Your task to perform on an android device: Go to wifi settings Image 0: 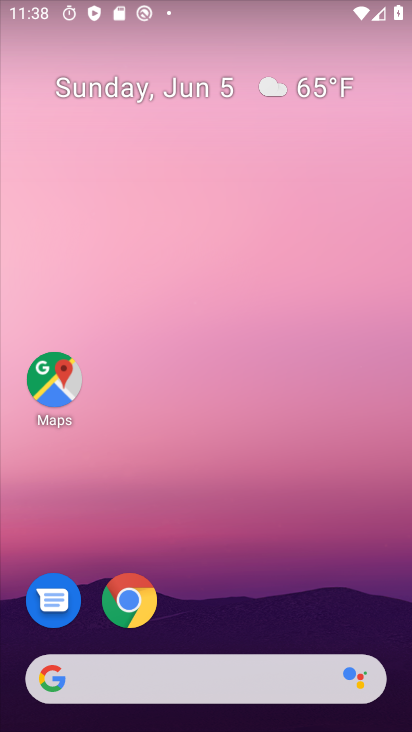
Step 0: drag from (257, 613) to (129, 143)
Your task to perform on an android device: Go to wifi settings Image 1: 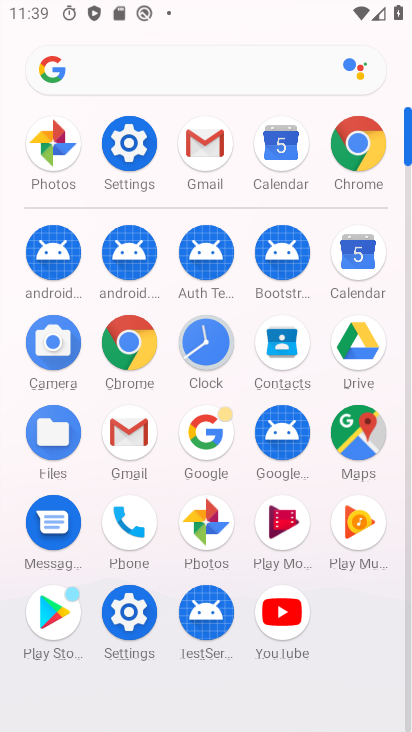
Step 1: click (130, 162)
Your task to perform on an android device: Go to wifi settings Image 2: 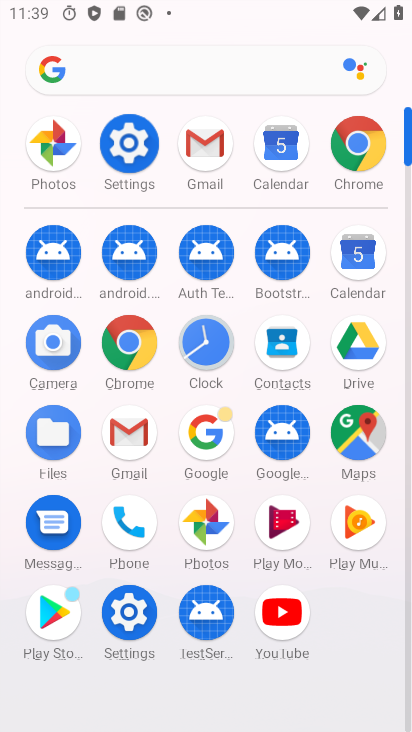
Step 2: click (130, 162)
Your task to perform on an android device: Go to wifi settings Image 3: 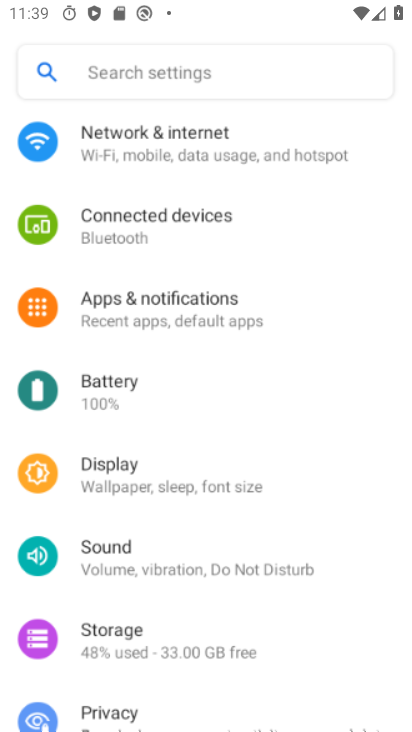
Step 3: click (134, 163)
Your task to perform on an android device: Go to wifi settings Image 4: 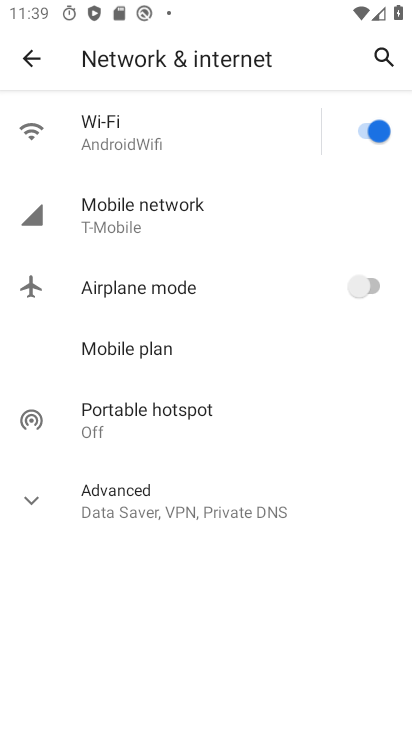
Step 4: task complete